Your task to perform on an android device: Open the calendar app, open the side menu, and click the "Day" option Image 0: 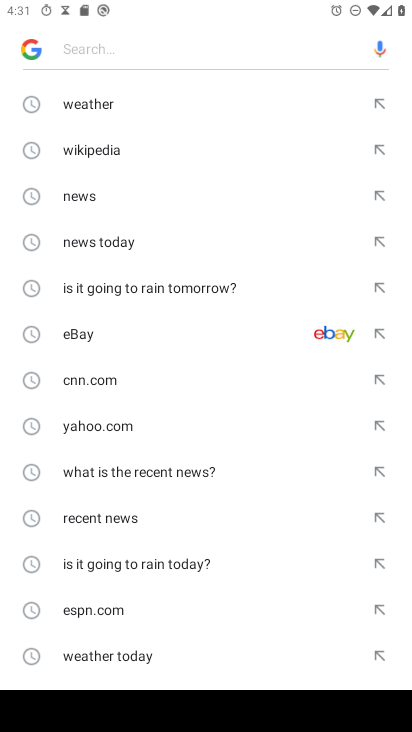
Step 0: press home button
Your task to perform on an android device: Open the calendar app, open the side menu, and click the "Day" option Image 1: 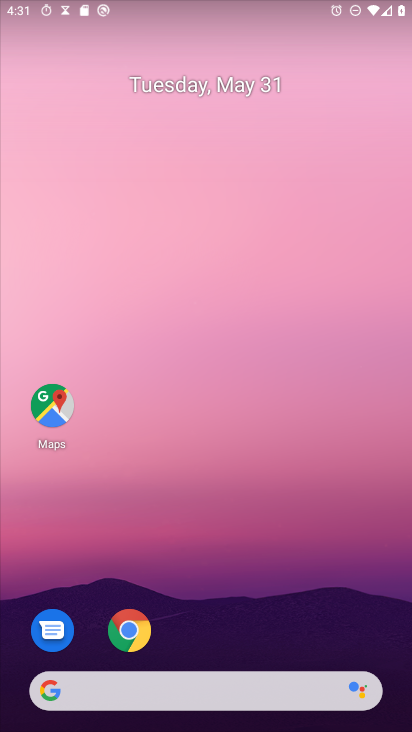
Step 1: drag from (285, 680) to (255, 90)
Your task to perform on an android device: Open the calendar app, open the side menu, and click the "Day" option Image 2: 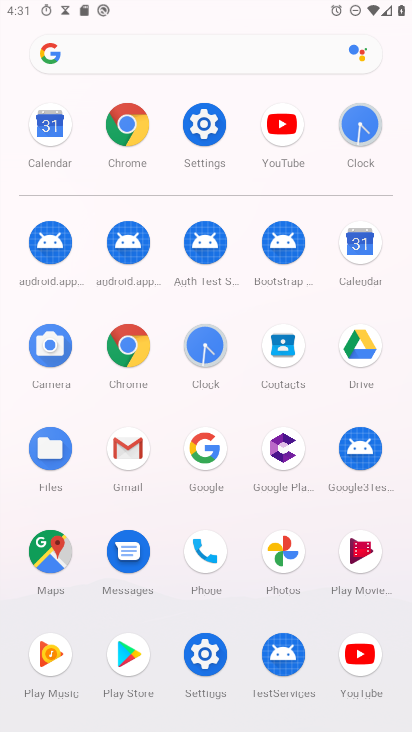
Step 2: click (375, 240)
Your task to perform on an android device: Open the calendar app, open the side menu, and click the "Day" option Image 3: 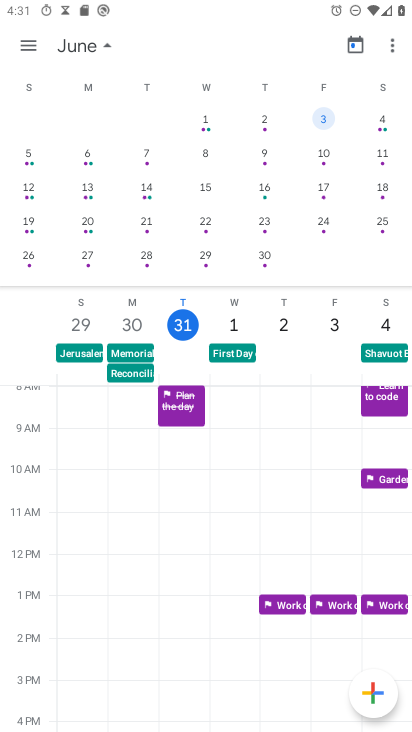
Step 3: click (46, 47)
Your task to perform on an android device: Open the calendar app, open the side menu, and click the "Day" option Image 4: 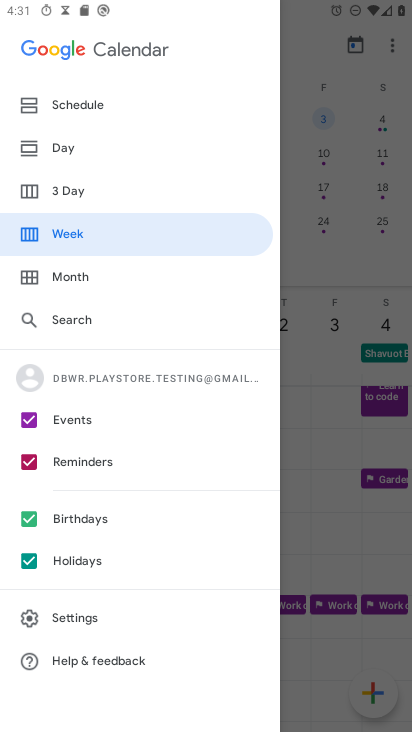
Step 4: click (73, 143)
Your task to perform on an android device: Open the calendar app, open the side menu, and click the "Day" option Image 5: 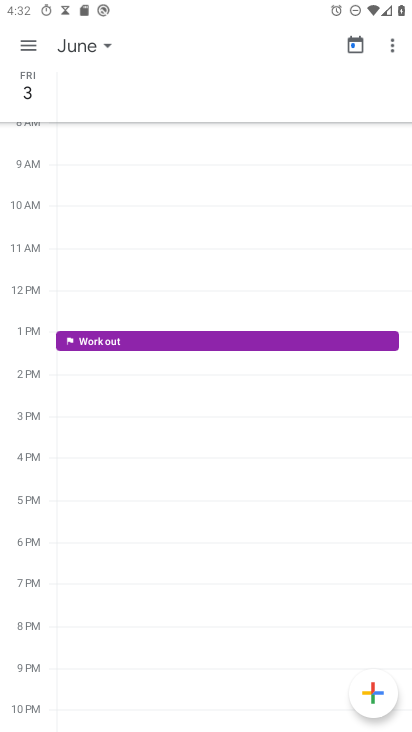
Step 5: task complete